Your task to perform on an android device: What is the recent news? Image 0: 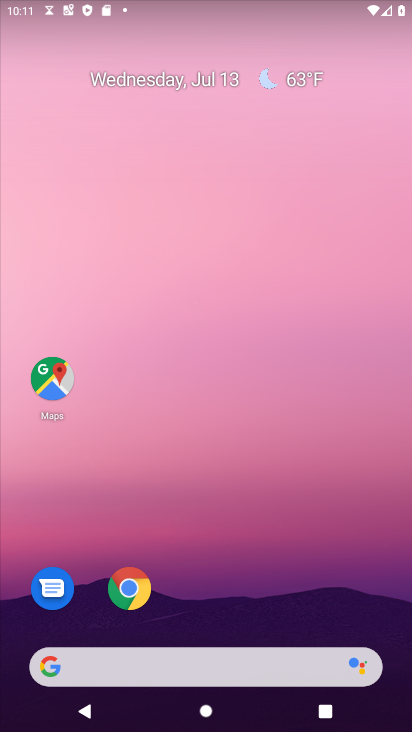
Step 0: click (279, 678)
Your task to perform on an android device: What is the recent news? Image 1: 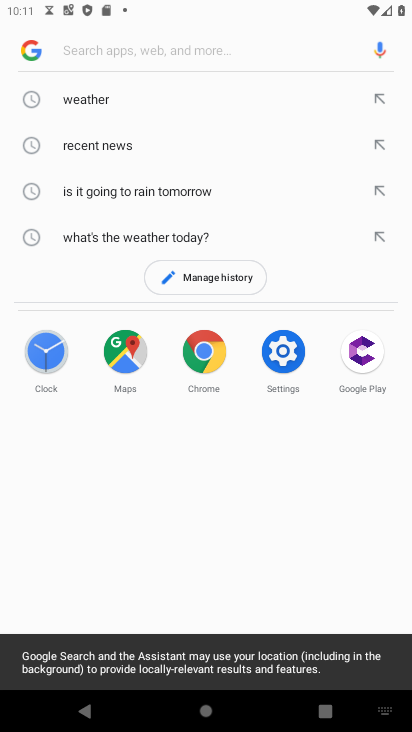
Step 1: click (154, 133)
Your task to perform on an android device: What is the recent news? Image 2: 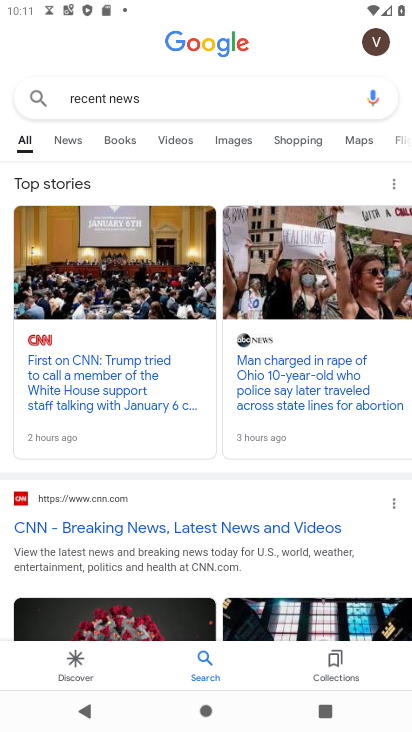
Step 2: task complete